Your task to perform on an android device: Search for hotels in NYC Image 0: 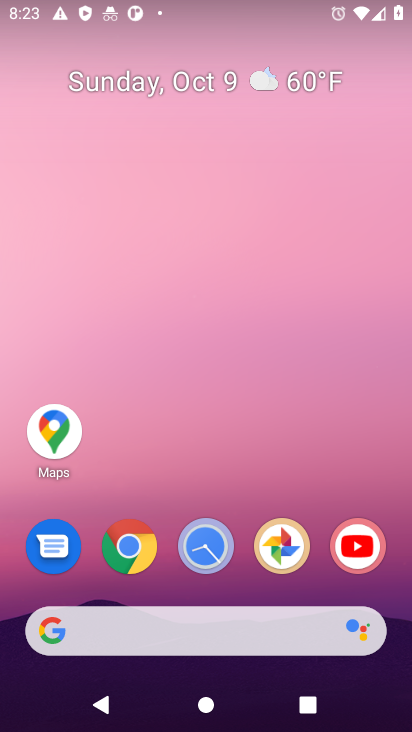
Step 0: click (133, 560)
Your task to perform on an android device: Search for hotels in NYC Image 1: 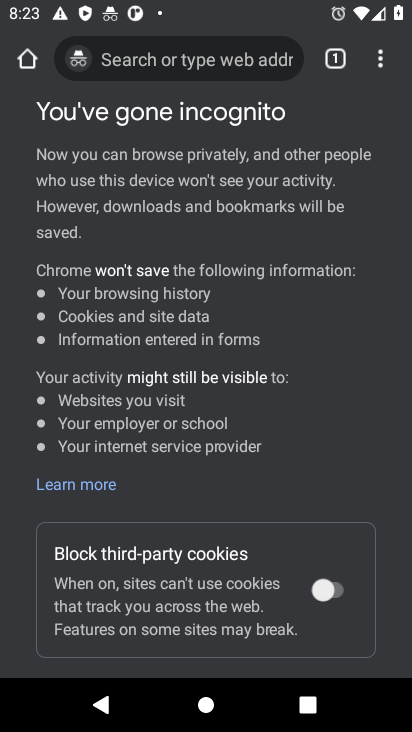
Step 1: press home button
Your task to perform on an android device: Search for hotels in NYC Image 2: 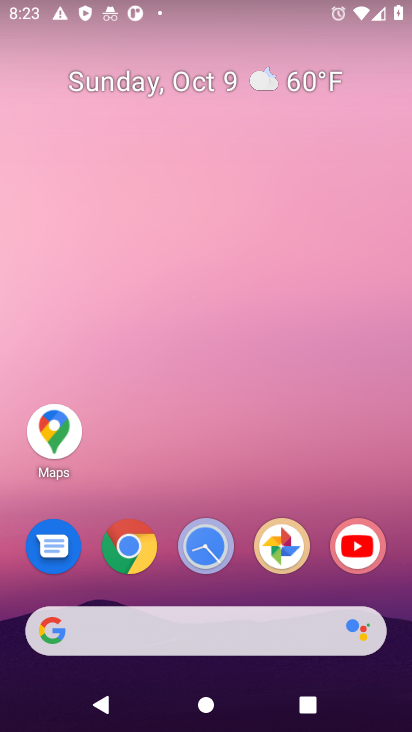
Step 2: click (145, 546)
Your task to perform on an android device: Search for hotels in NYC Image 3: 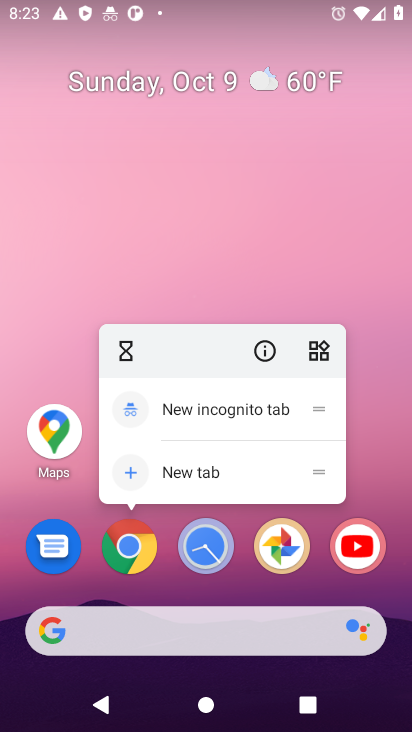
Step 3: click (124, 553)
Your task to perform on an android device: Search for hotels in NYC Image 4: 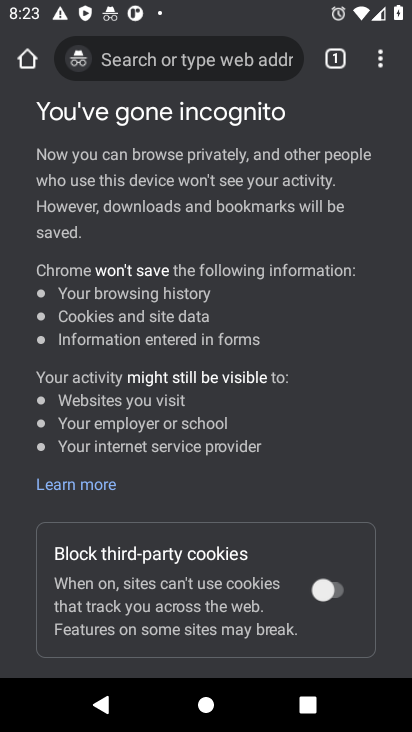
Step 4: click (374, 63)
Your task to perform on an android device: Search for hotels in NYC Image 5: 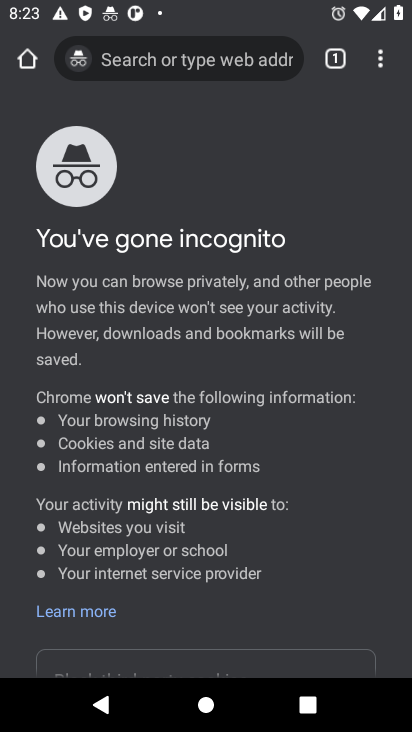
Step 5: click (377, 66)
Your task to perform on an android device: Search for hotels in NYC Image 6: 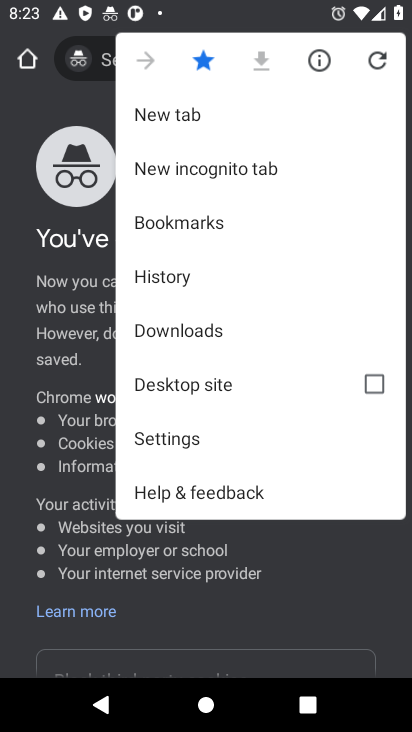
Step 6: click (248, 127)
Your task to perform on an android device: Search for hotels in NYC Image 7: 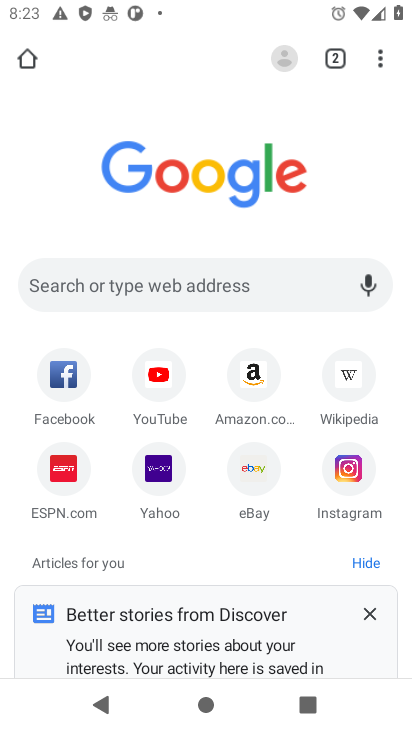
Step 7: click (188, 272)
Your task to perform on an android device: Search for hotels in NYC Image 8: 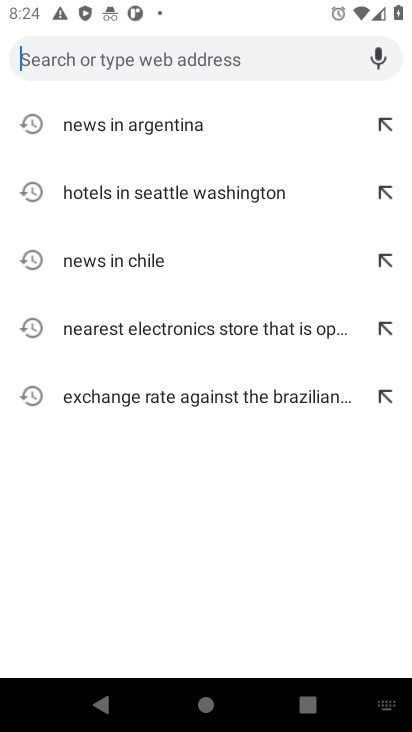
Step 8: type "hotels in nyc"
Your task to perform on an android device: Search for hotels in NYC Image 9: 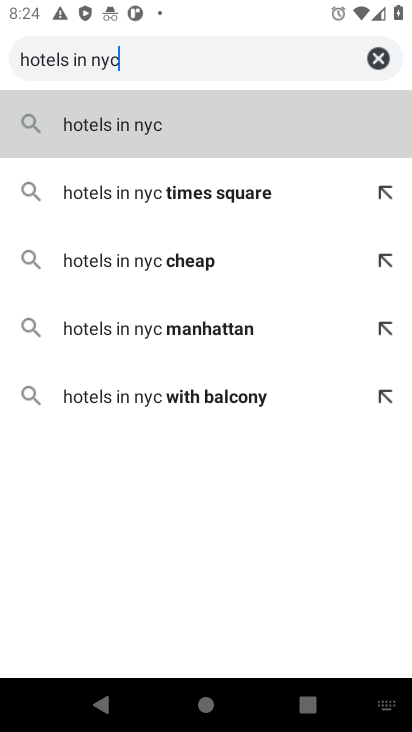
Step 9: click (241, 136)
Your task to perform on an android device: Search for hotels in NYC Image 10: 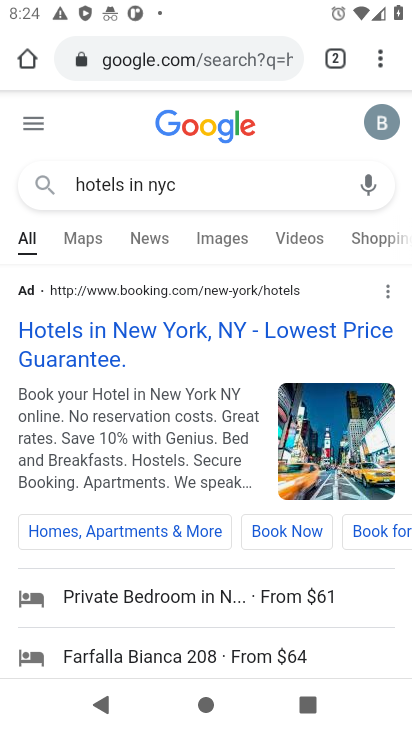
Step 10: click (96, 362)
Your task to perform on an android device: Search for hotels in NYC Image 11: 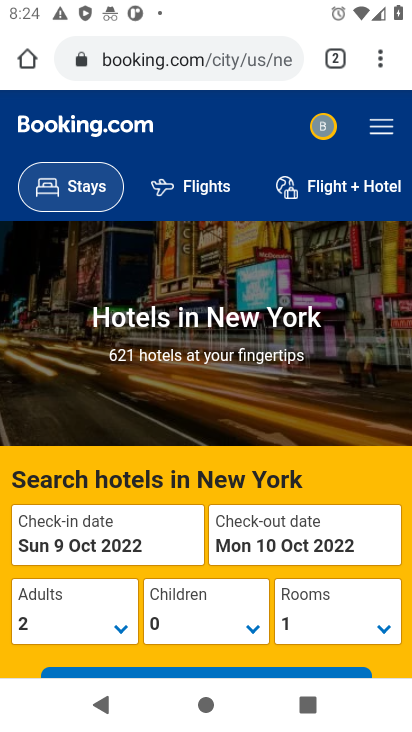
Step 11: drag from (130, 393) to (149, 308)
Your task to perform on an android device: Search for hotels in NYC Image 12: 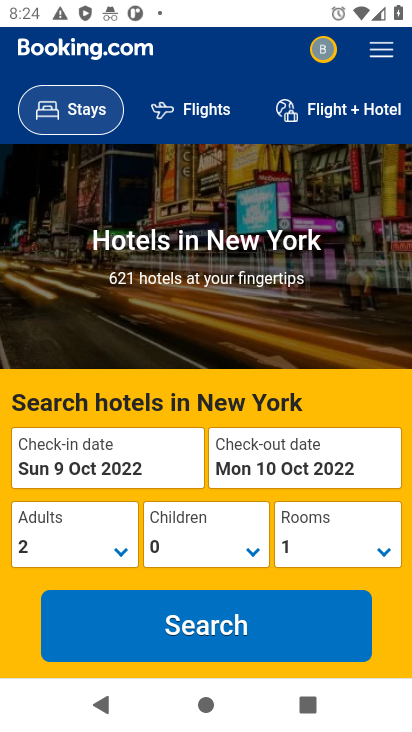
Step 12: click (194, 667)
Your task to perform on an android device: Search for hotels in NYC Image 13: 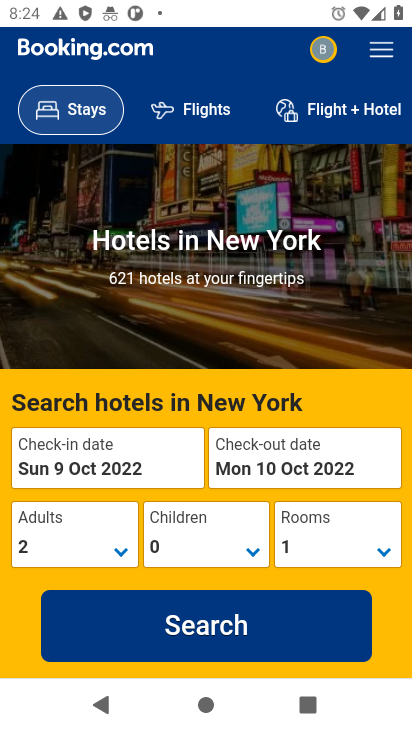
Step 13: click (206, 634)
Your task to perform on an android device: Search for hotels in NYC Image 14: 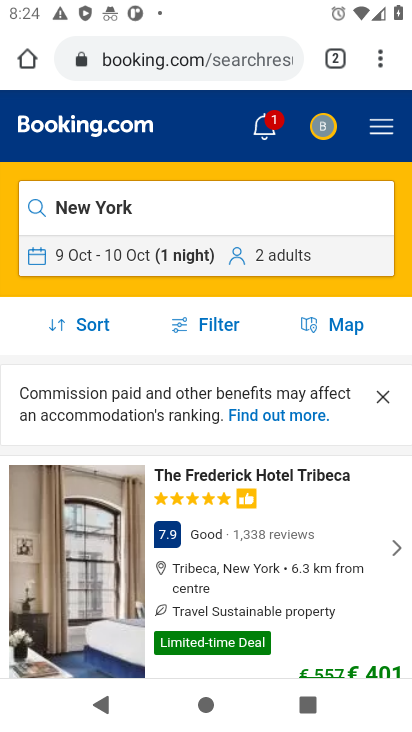
Step 14: task complete